Your task to perform on an android device: Show me recent news Image 0: 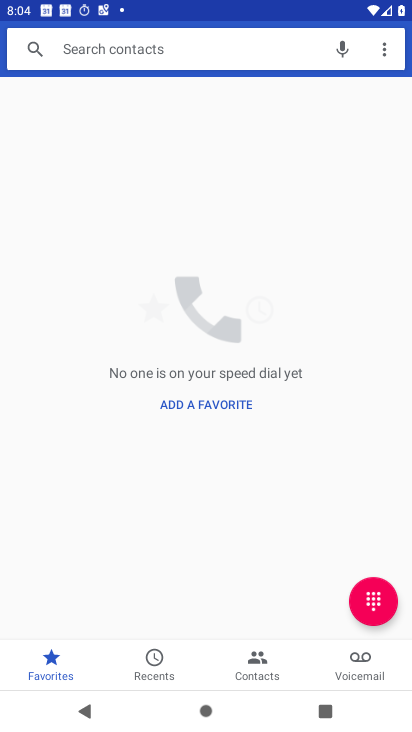
Step 0: press home button
Your task to perform on an android device: Show me recent news Image 1: 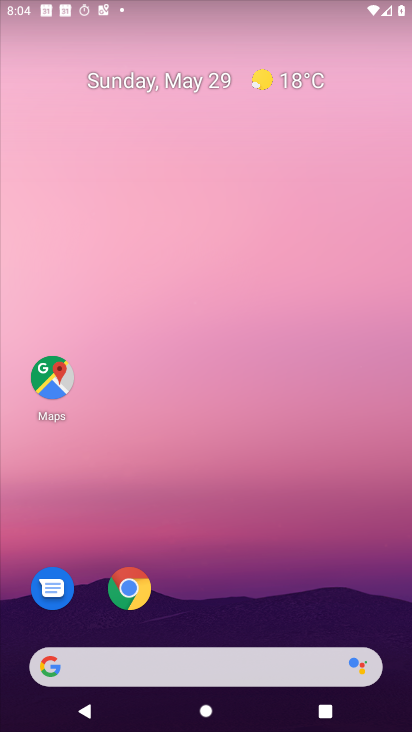
Step 1: drag from (242, 584) to (278, 53)
Your task to perform on an android device: Show me recent news Image 2: 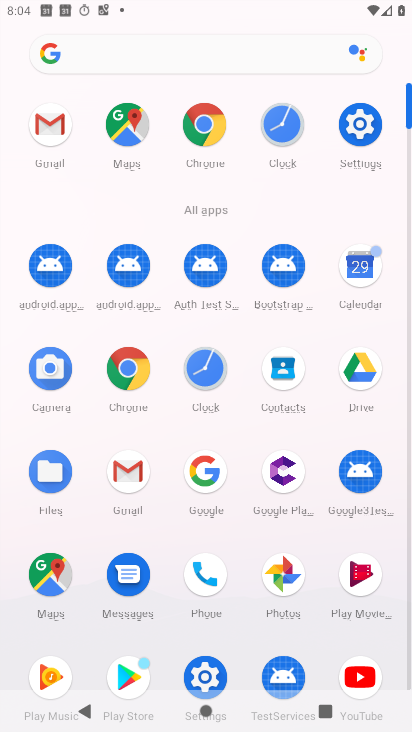
Step 2: click (207, 474)
Your task to perform on an android device: Show me recent news Image 3: 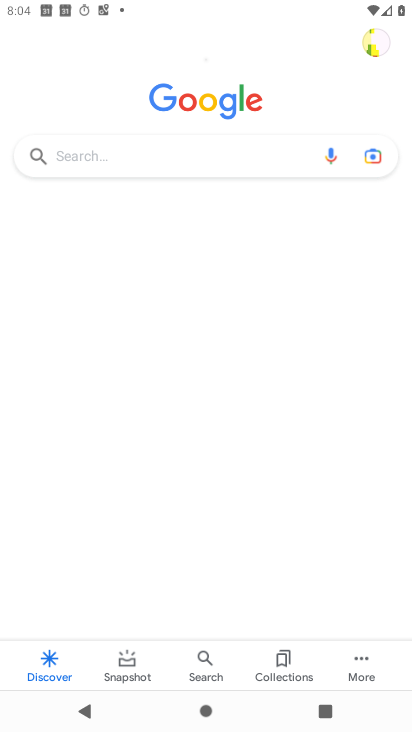
Step 3: click (142, 160)
Your task to perform on an android device: Show me recent news Image 4: 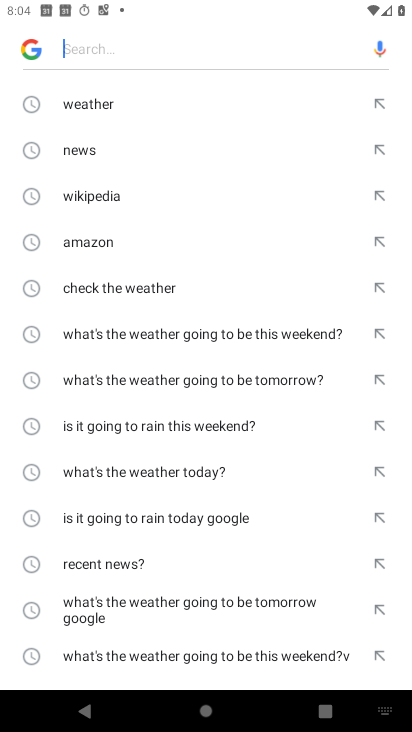
Step 4: click (85, 153)
Your task to perform on an android device: Show me recent news Image 5: 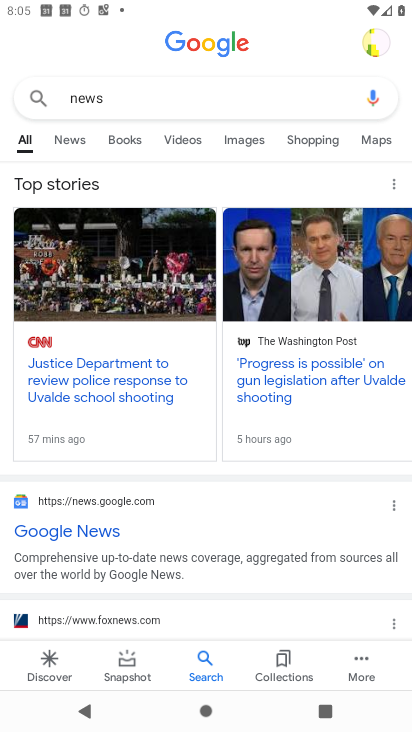
Step 5: task complete